Your task to perform on an android device: turn pop-ups off in chrome Image 0: 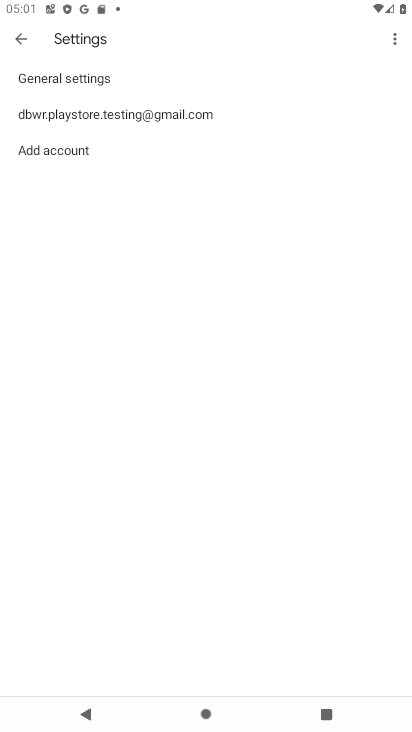
Step 0: press home button
Your task to perform on an android device: turn pop-ups off in chrome Image 1: 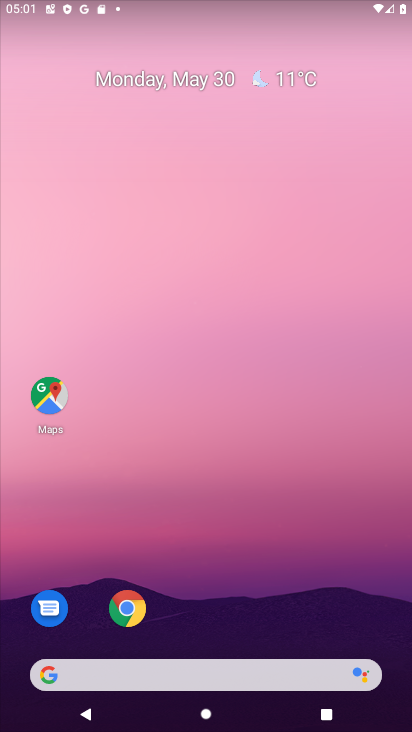
Step 1: click (139, 611)
Your task to perform on an android device: turn pop-ups off in chrome Image 2: 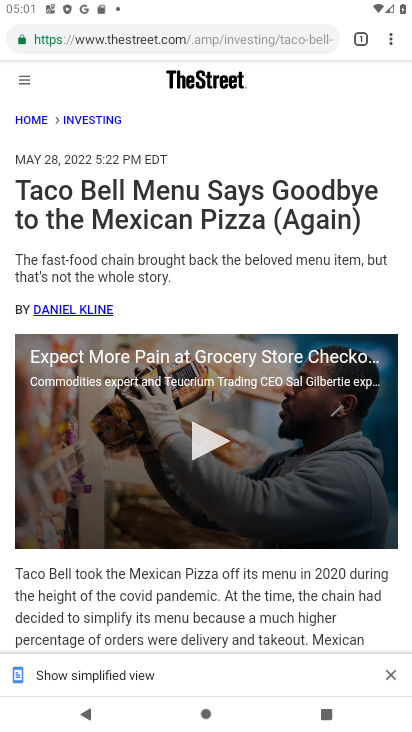
Step 2: click (392, 30)
Your task to perform on an android device: turn pop-ups off in chrome Image 3: 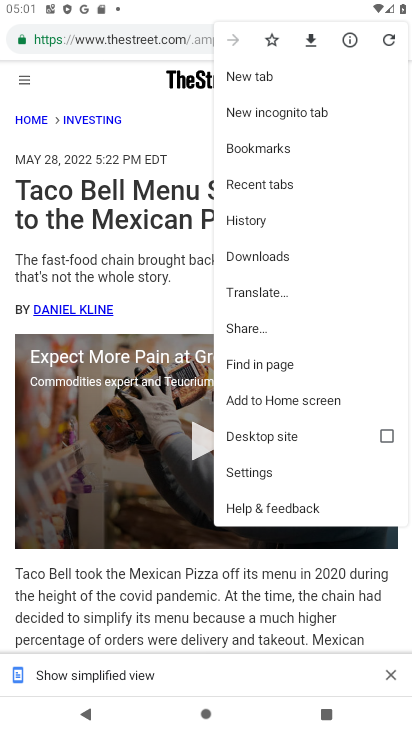
Step 3: click (261, 473)
Your task to perform on an android device: turn pop-ups off in chrome Image 4: 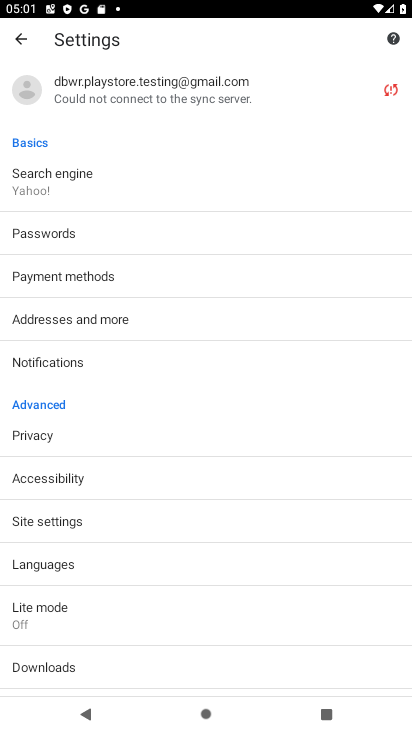
Step 4: click (24, 516)
Your task to perform on an android device: turn pop-ups off in chrome Image 5: 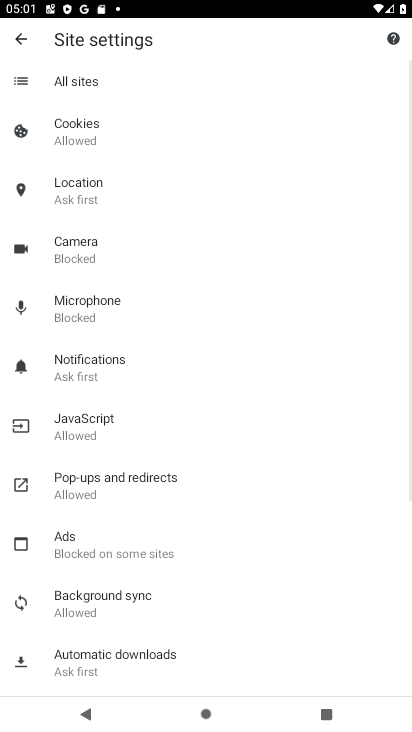
Step 5: click (129, 489)
Your task to perform on an android device: turn pop-ups off in chrome Image 6: 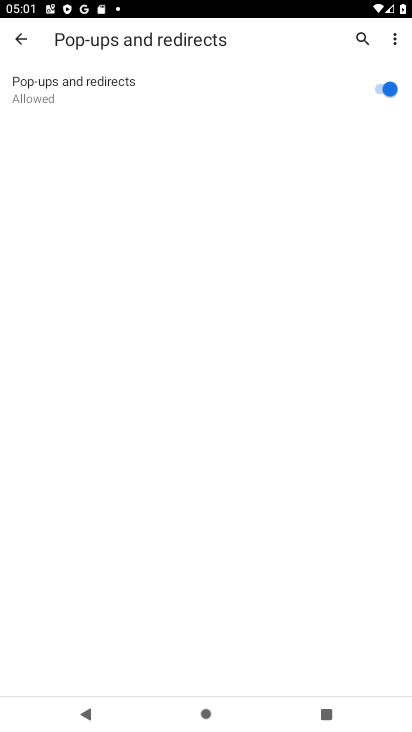
Step 6: task complete